Your task to perform on an android device: Go to Reddit.com Image 0: 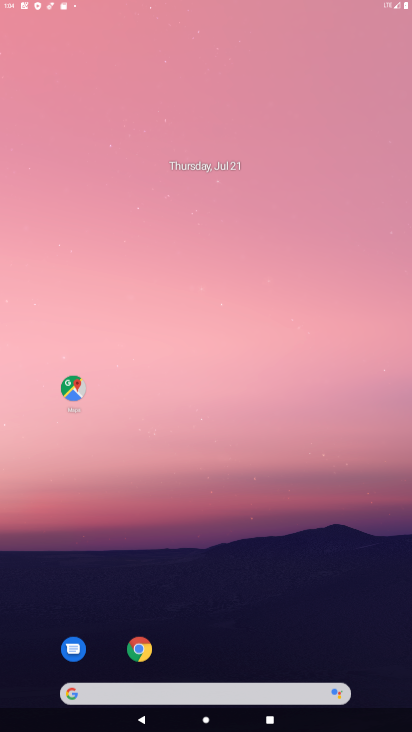
Step 0: click (169, 288)
Your task to perform on an android device: Go to Reddit.com Image 1: 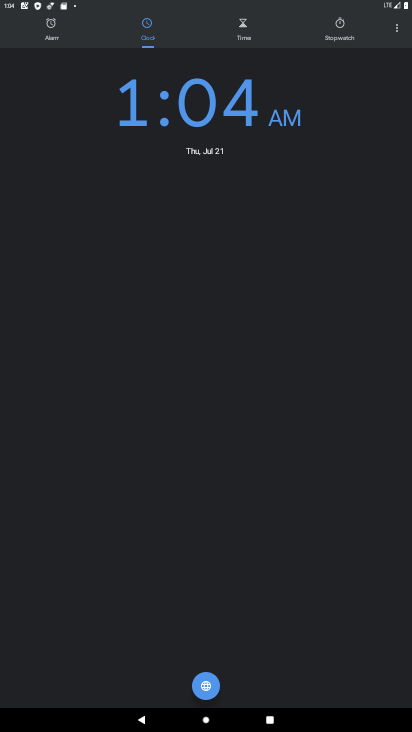
Step 1: press home button
Your task to perform on an android device: Go to Reddit.com Image 2: 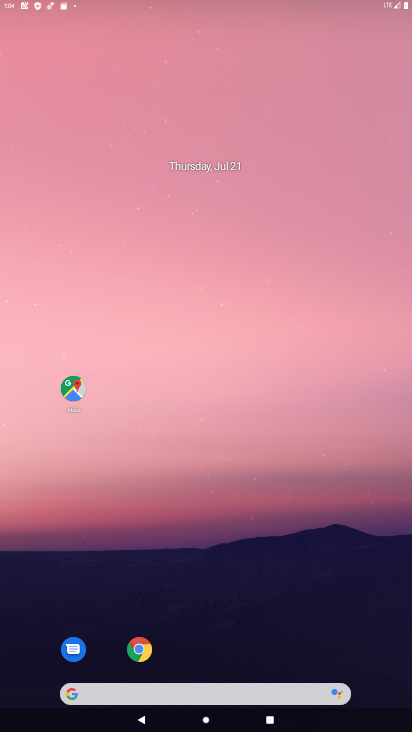
Step 2: drag from (116, 683) to (118, 316)
Your task to perform on an android device: Go to Reddit.com Image 3: 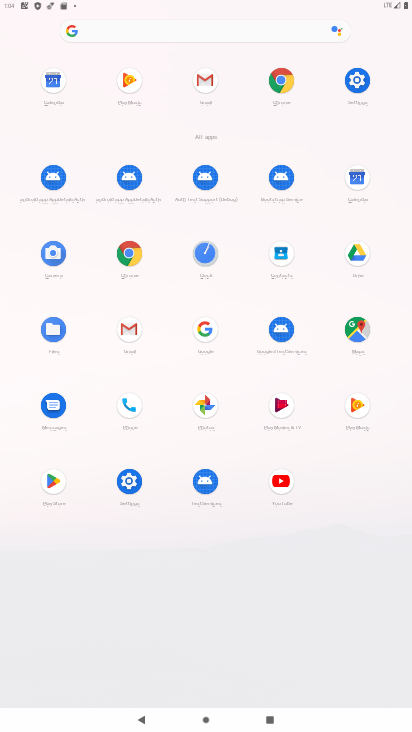
Step 3: click (202, 320)
Your task to perform on an android device: Go to Reddit.com Image 4: 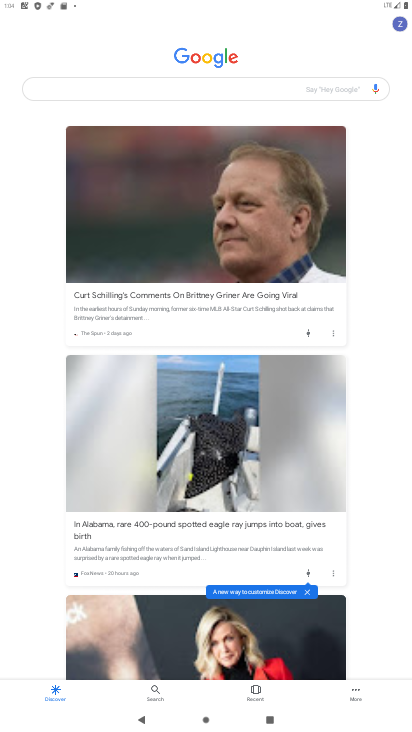
Step 4: click (138, 94)
Your task to perform on an android device: Go to Reddit.com Image 5: 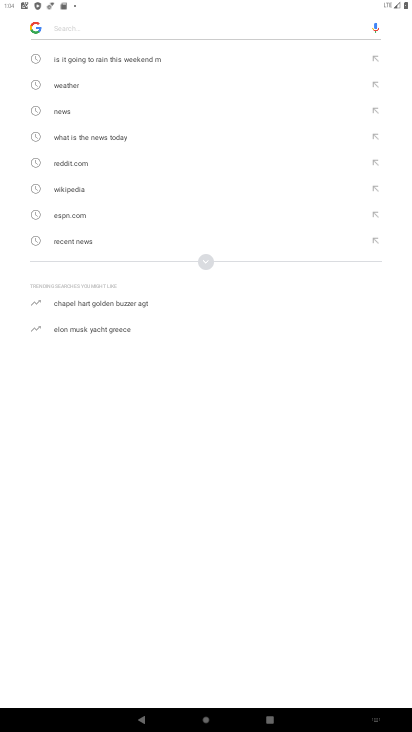
Step 5: click (85, 159)
Your task to perform on an android device: Go to Reddit.com Image 6: 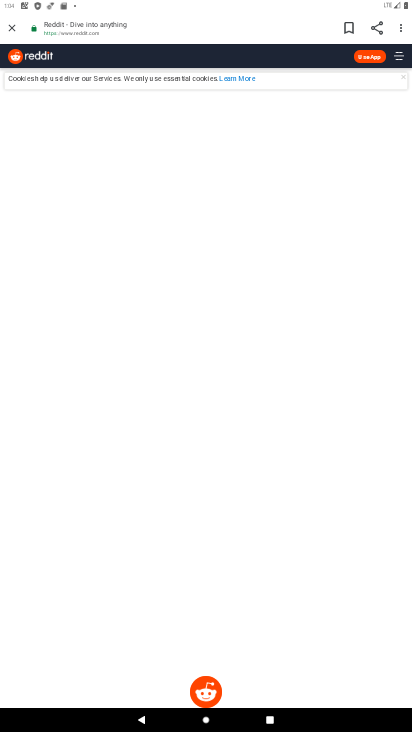
Step 6: task complete